Your task to perform on an android device: add a label to a message in the gmail app Image 0: 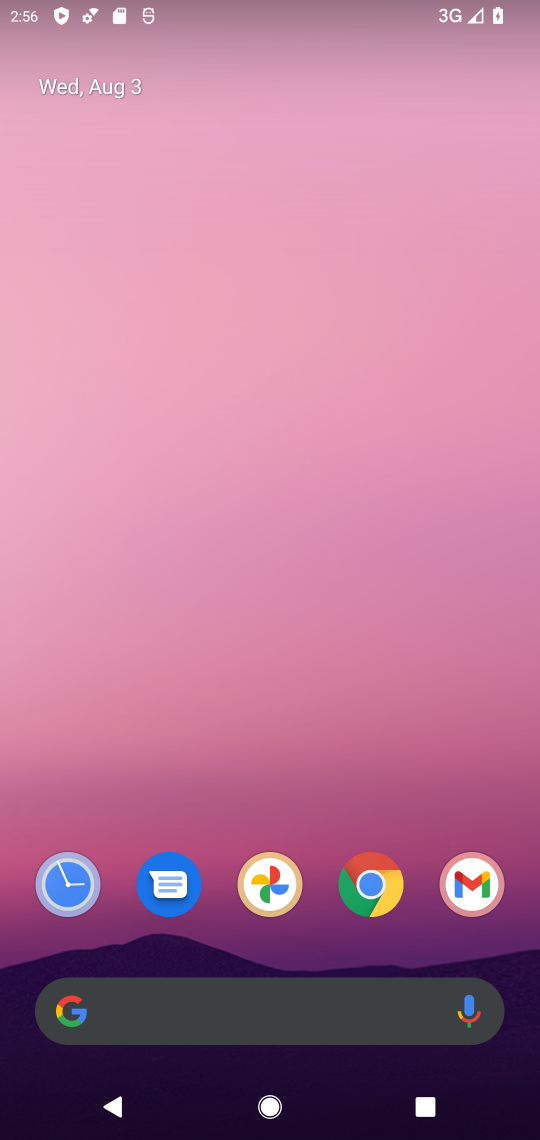
Step 0: click (438, 896)
Your task to perform on an android device: add a label to a message in the gmail app Image 1: 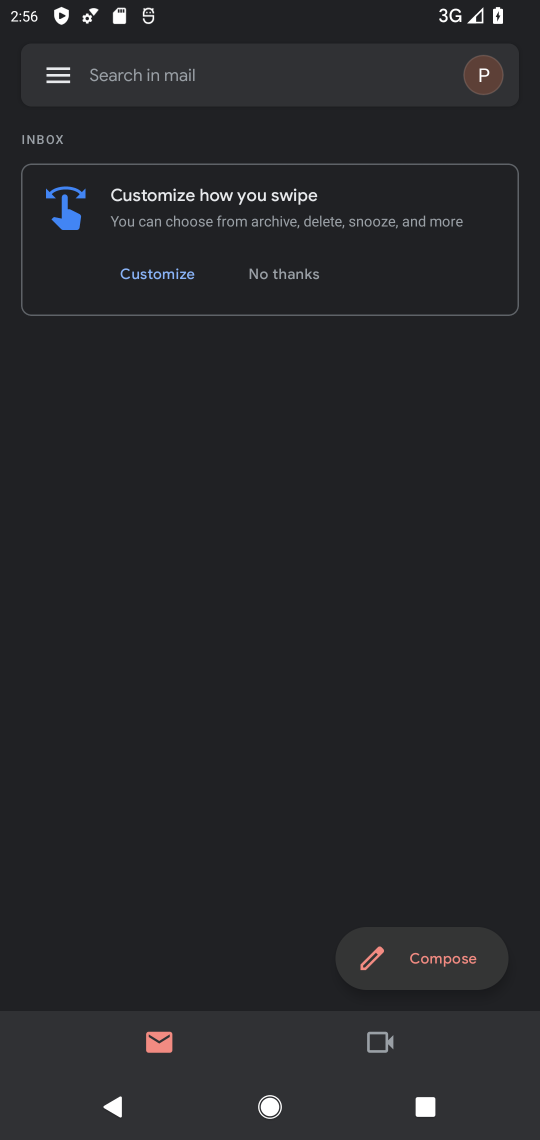
Step 1: click (312, 277)
Your task to perform on an android device: add a label to a message in the gmail app Image 2: 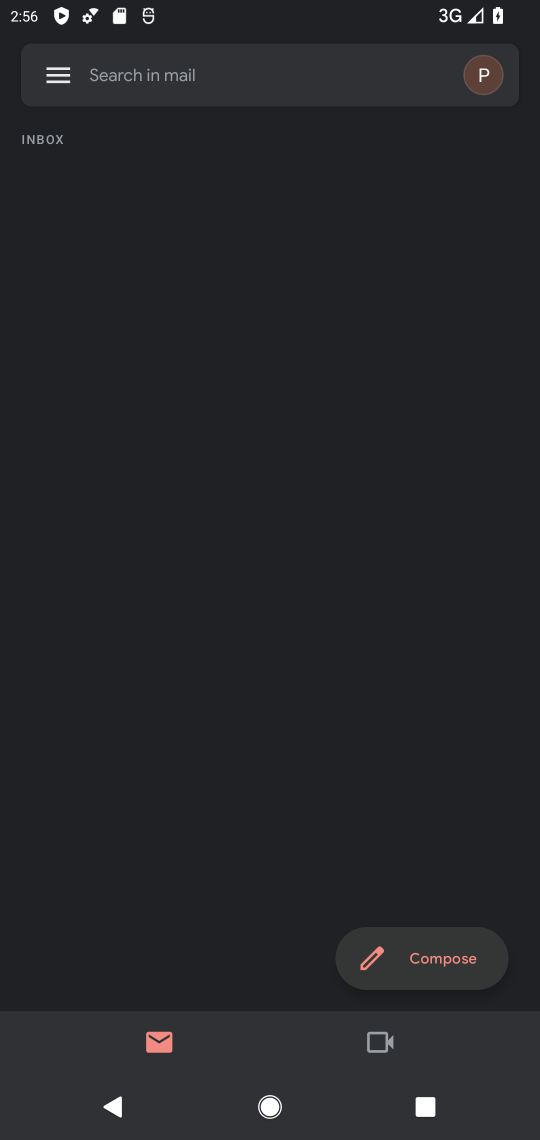
Step 2: click (62, 81)
Your task to perform on an android device: add a label to a message in the gmail app Image 3: 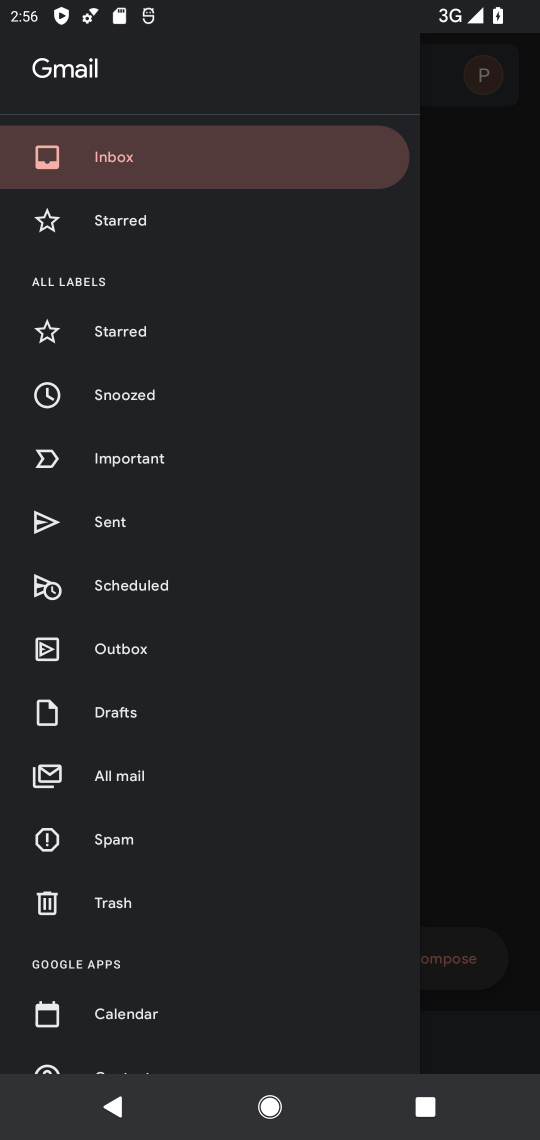
Step 3: click (162, 775)
Your task to perform on an android device: add a label to a message in the gmail app Image 4: 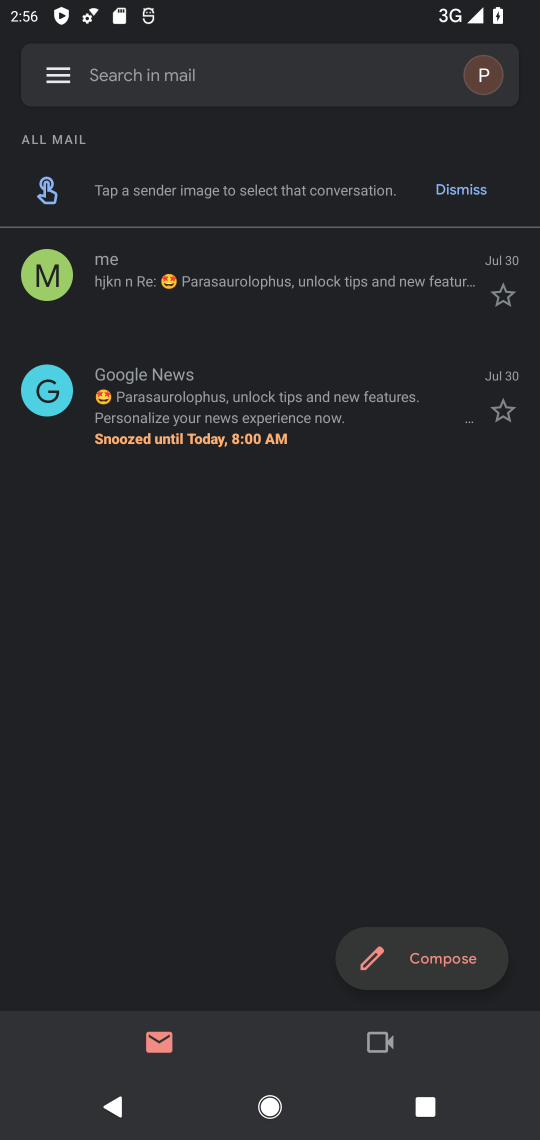
Step 4: click (422, 264)
Your task to perform on an android device: add a label to a message in the gmail app Image 5: 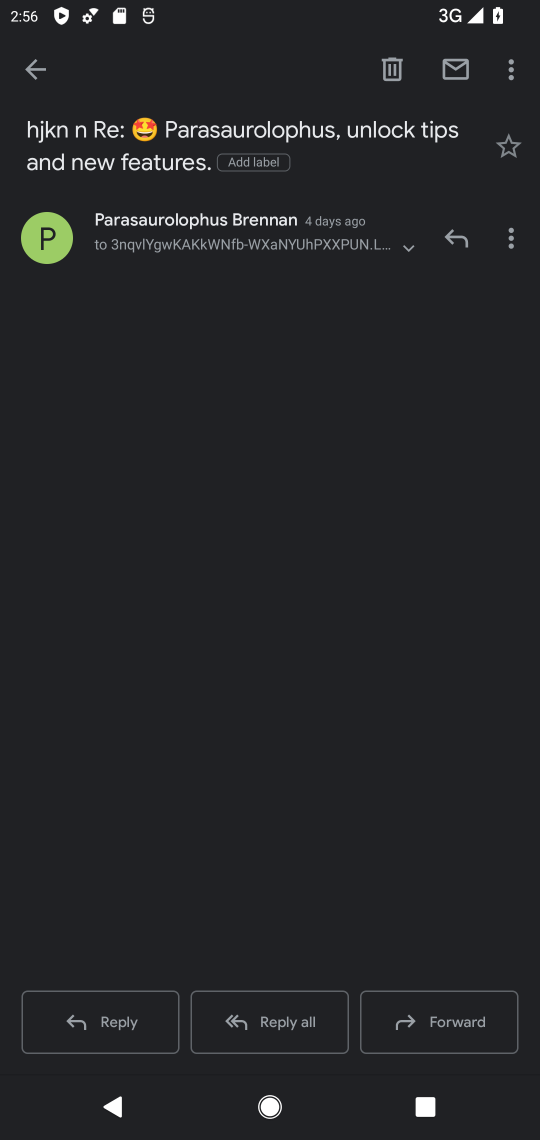
Step 5: click (496, 82)
Your task to perform on an android device: add a label to a message in the gmail app Image 6: 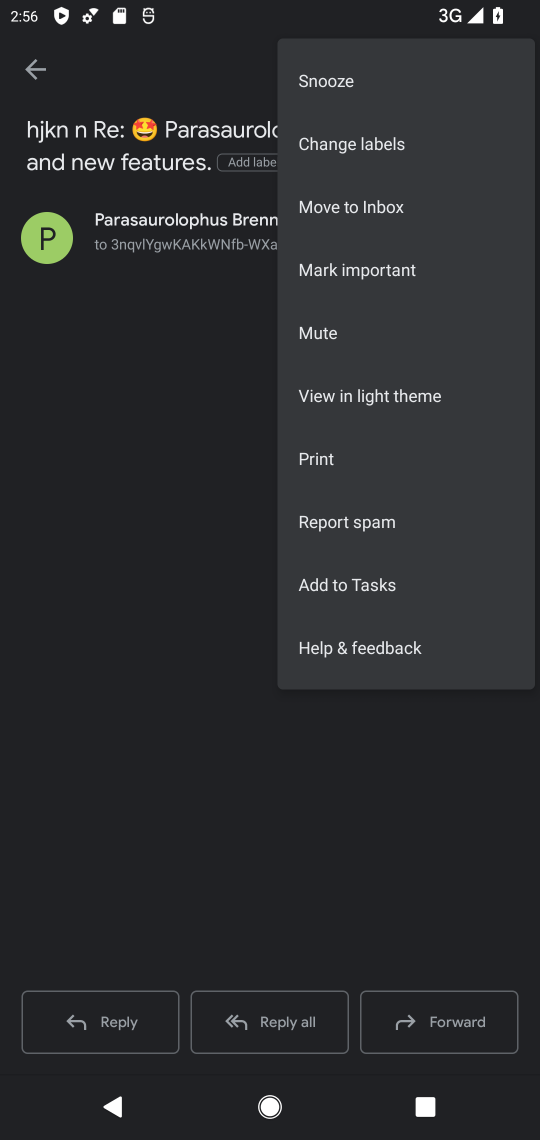
Step 6: click (392, 151)
Your task to perform on an android device: add a label to a message in the gmail app Image 7: 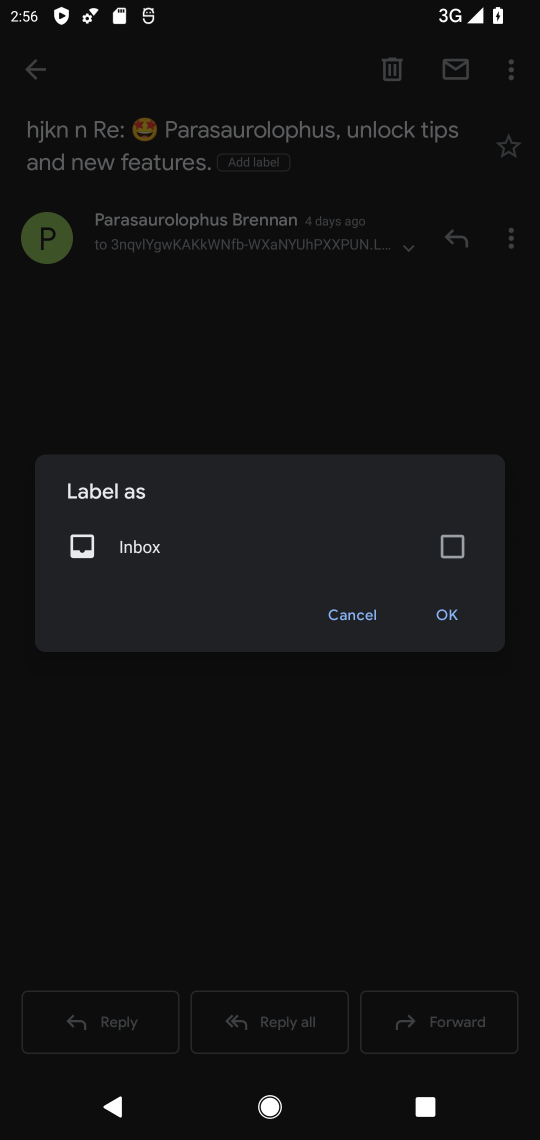
Step 7: click (467, 535)
Your task to perform on an android device: add a label to a message in the gmail app Image 8: 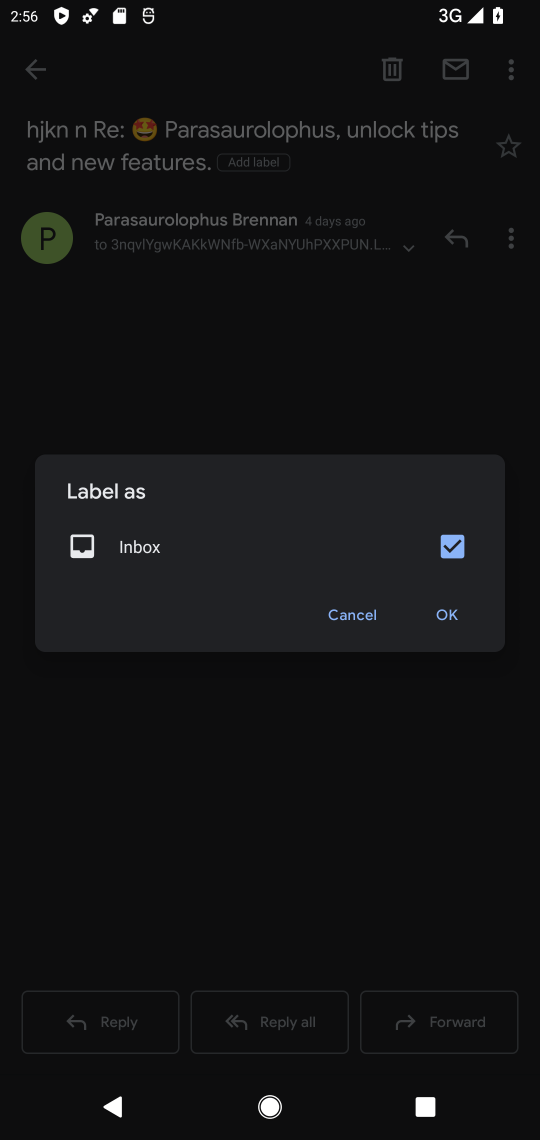
Step 8: click (433, 620)
Your task to perform on an android device: add a label to a message in the gmail app Image 9: 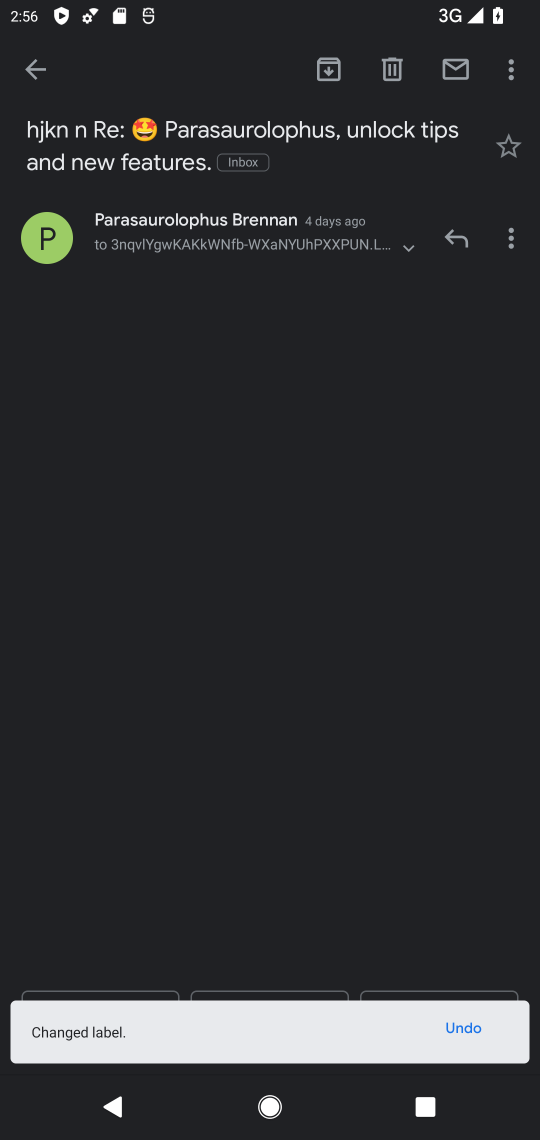
Step 9: task complete